Your task to perform on an android device: turn pop-ups on in chrome Image 0: 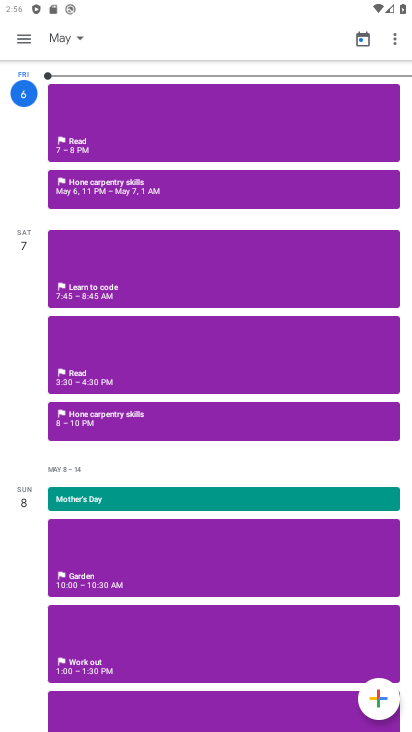
Step 0: drag from (225, 725) to (220, 242)
Your task to perform on an android device: turn pop-ups on in chrome Image 1: 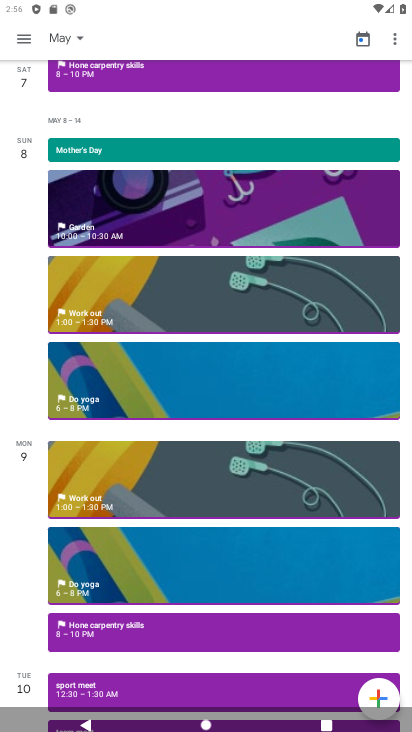
Step 1: press home button
Your task to perform on an android device: turn pop-ups on in chrome Image 2: 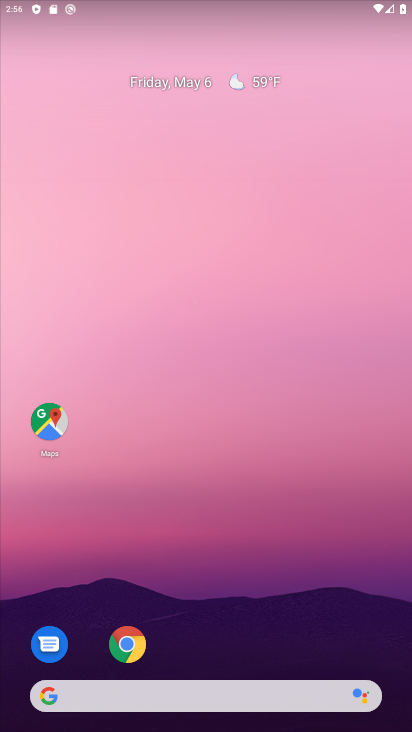
Step 2: click (124, 645)
Your task to perform on an android device: turn pop-ups on in chrome Image 3: 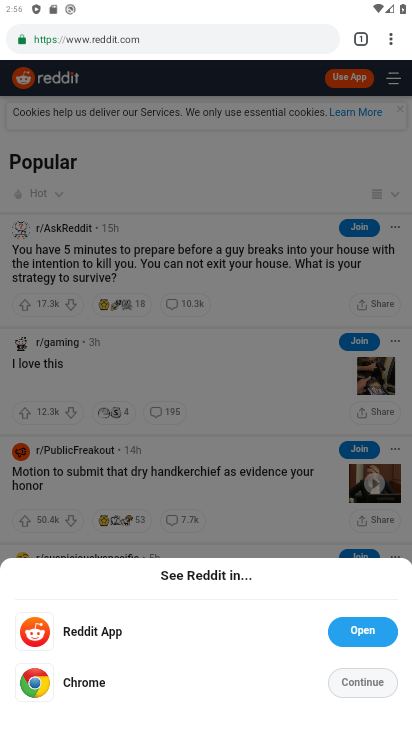
Step 3: drag from (389, 36) to (311, 465)
Your task to perform on an android device: turn pop-ups on in chrome Image 4: 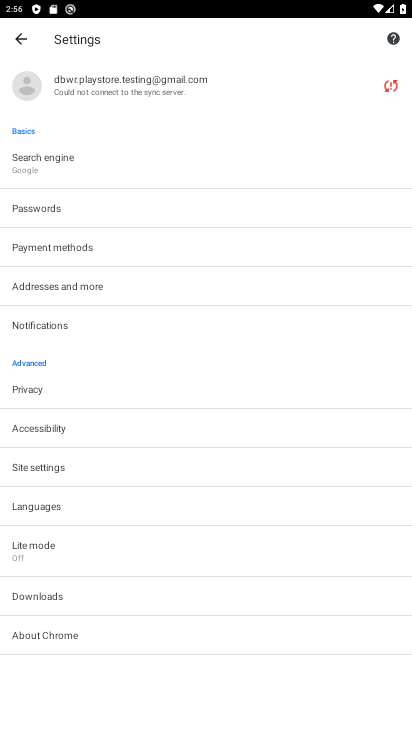
Step 4: click (49, 470)
Your task to perform on an android device: turn pop-ups on in chrome Image 5: 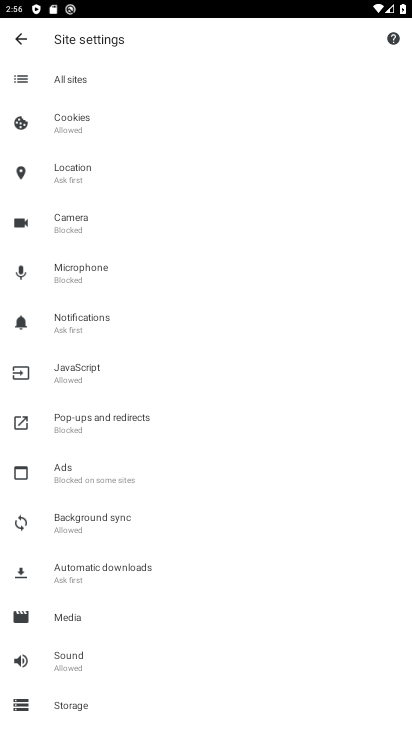
Step 5: click (99, 414)
Your task to perform on an android device: turn pop-ups on in chrome Image 6: 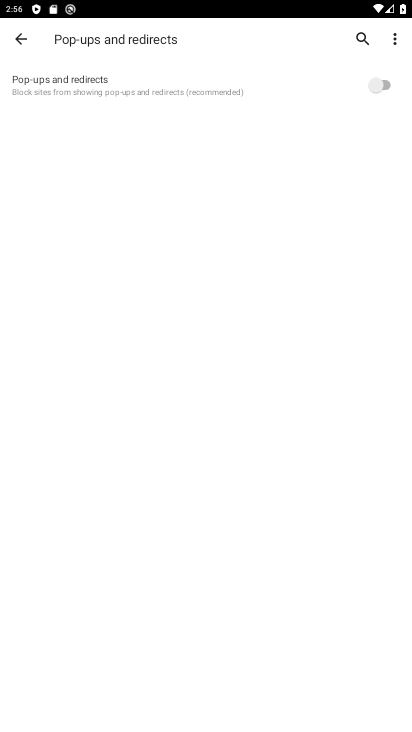
Step 6: click (390, 84)
Your task to perform on an android device: turn pop-ups on in chrome Image 7: 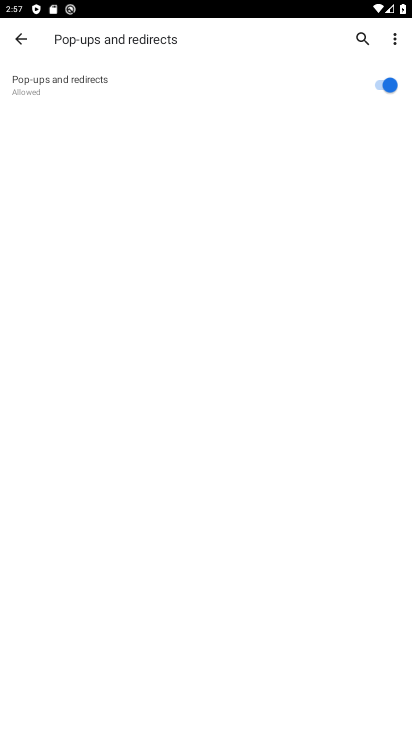
Step 7: task complete